Your task to perform on an android device: Search for Mexican restaurants on Maps Image 0: 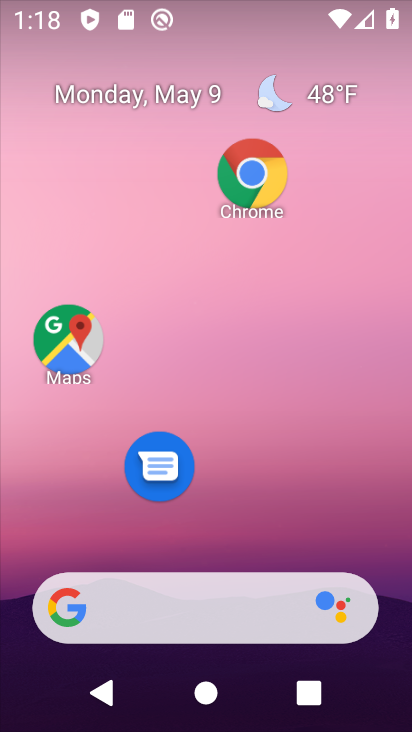
Step 0: click (87, 364)
Your task to perform on an android device: Search for Mexican restaurants on Maps Image 1: 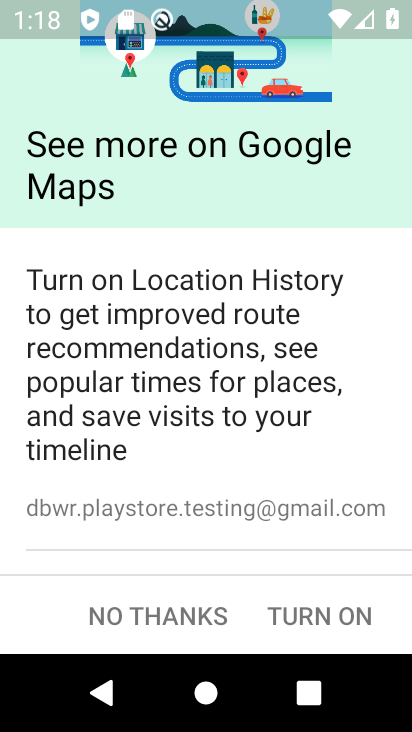
Step 1: click (285, 599)
Your task to perform on an android device: Search for Mexican restaurants on Maps Image 2: 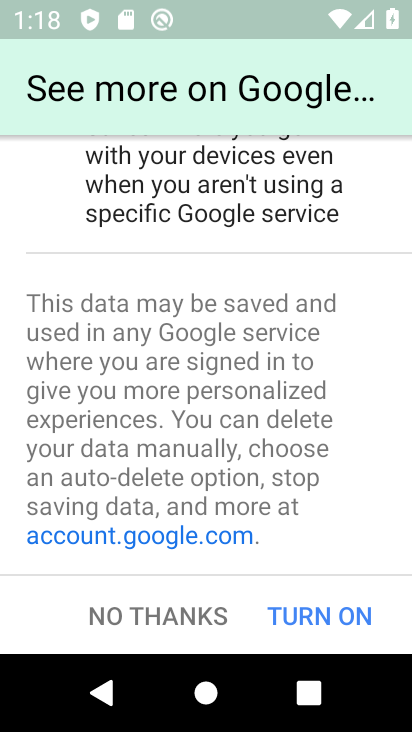
Step 2: click (313, 612)
Your task to perform on an android device: Search for Mexican restaurants on Maps Image 3: 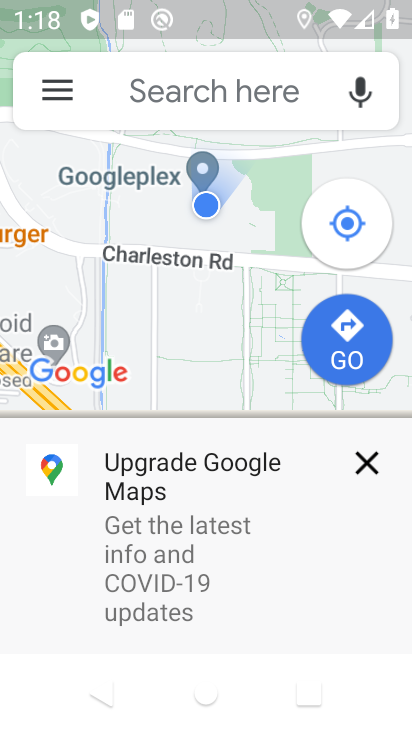
Step 3: click (149, 80)
Your task to perform on an android device: Search for Mexican restaurants on Maps Image 4: 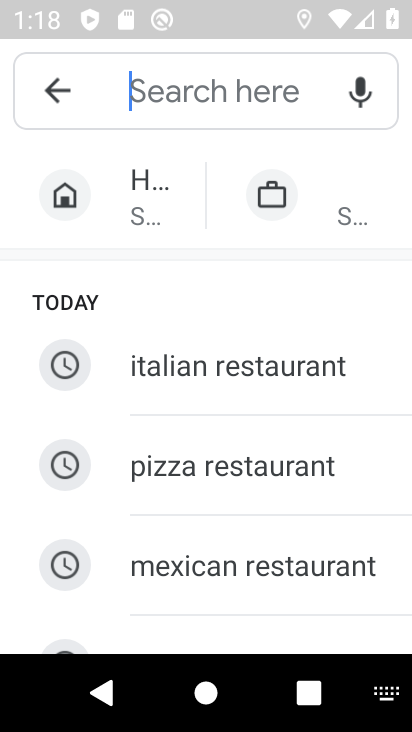
Step 4: type "Mexican restaurants"
Your task to perform on an android device: Search for Mexican restaurants on Maps Image 5: 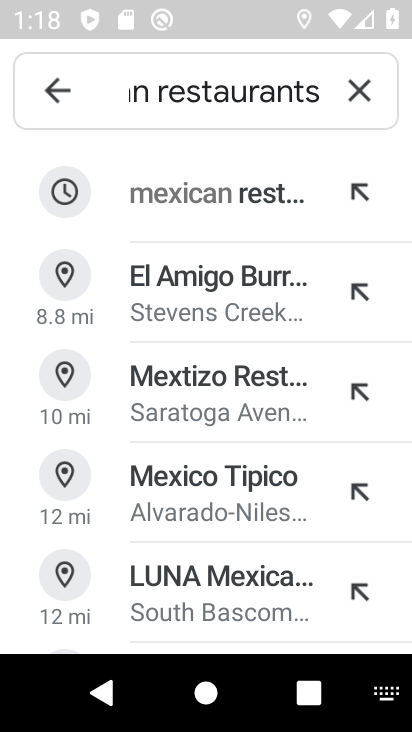
Step 5: click (261, 175)
Your task to perform on an android device: Search for Mexican restaurants on Maps Image 6: 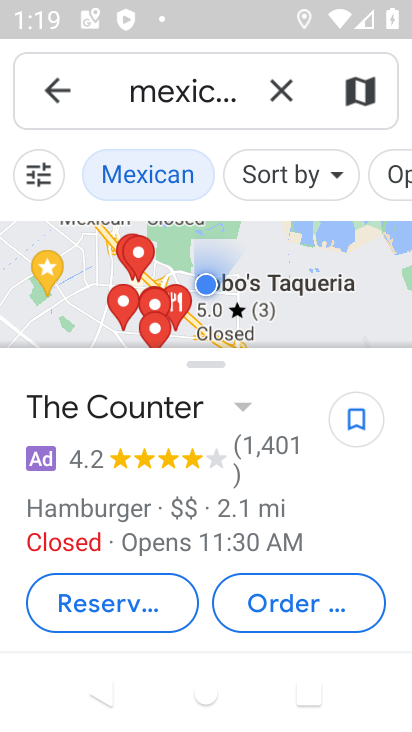
Step 6: task complete